Your task to perform on an android device: remove spam from my inbox in the gmail app Image 0: 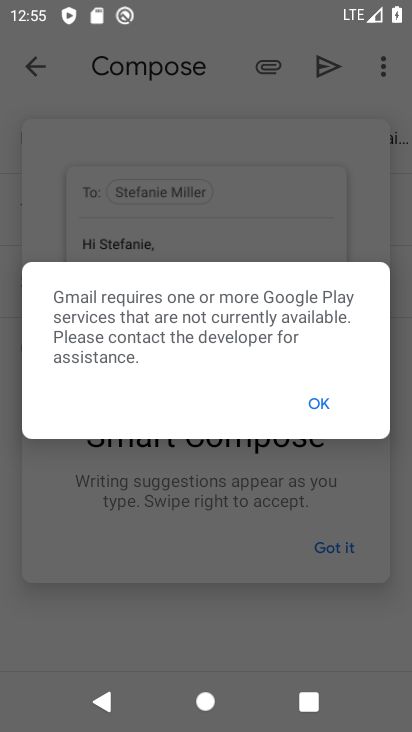
Step 0: press home button
Your task to perform on an android device: remove spam from my inbox in the gmail app Image 1: 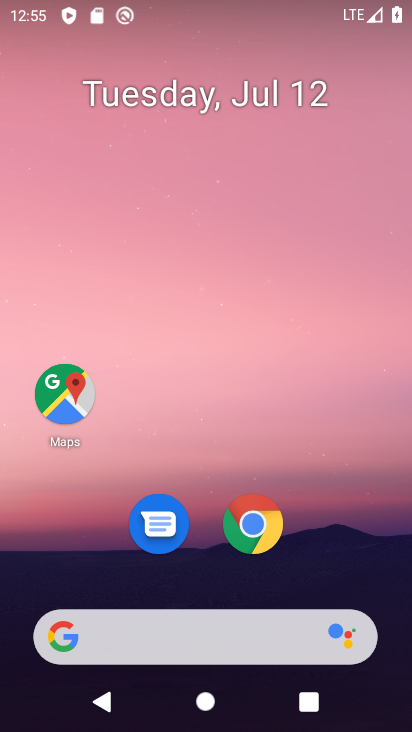
Step 1: drag from (326, 520) to (322, 6)
Your task to perform on an android device: remove spam from my inbox in the gmail app Image 2: 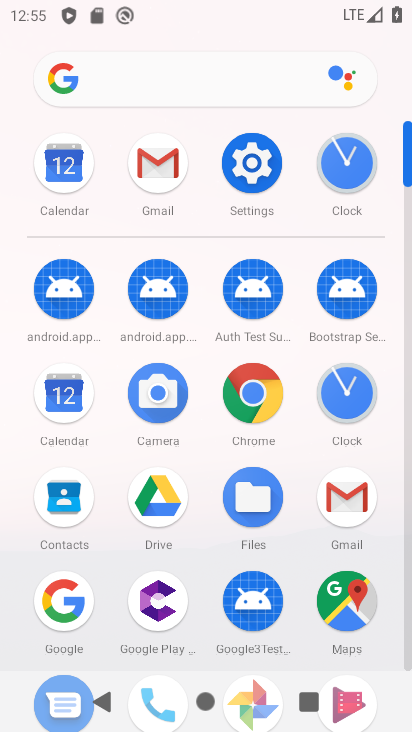
Step 2: click (157, 166)
Your task to perform on an android device: remove spam from my inbox in the gmail app Image 3: 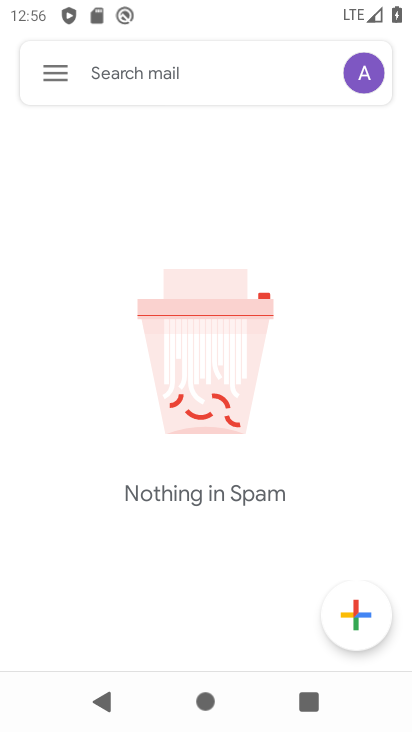
Step 3: task complete